Your task to perform on an android device: turn off improve location accuracy Image 0: 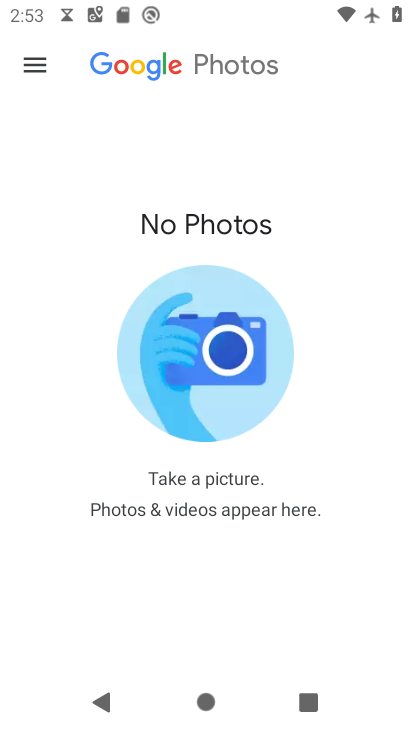
Step 0: press home button
Your task to perform on an android device: turn off improve location accuracy Image 1: 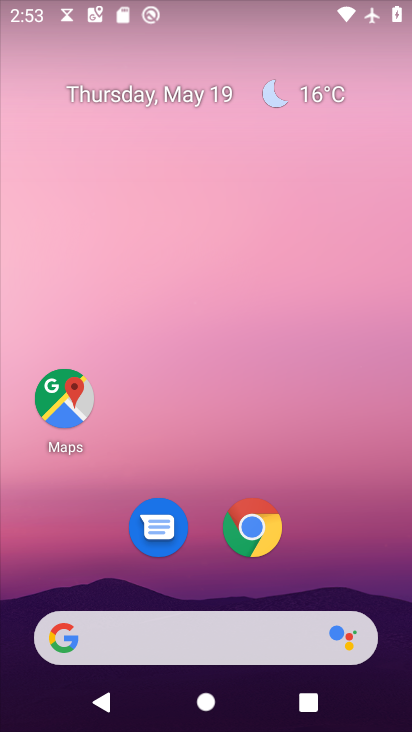
Step 1: drag from (331, 575) to (245, 56)
Your task to perform on an android device: turn off improve location accuracy Image 2: 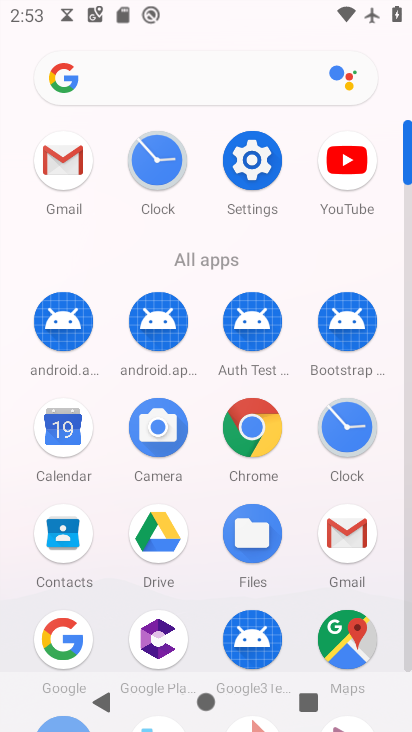
Step 2: click (262, 147)
Your task to perform on an android device: turn off improve location accuracy Image 3: 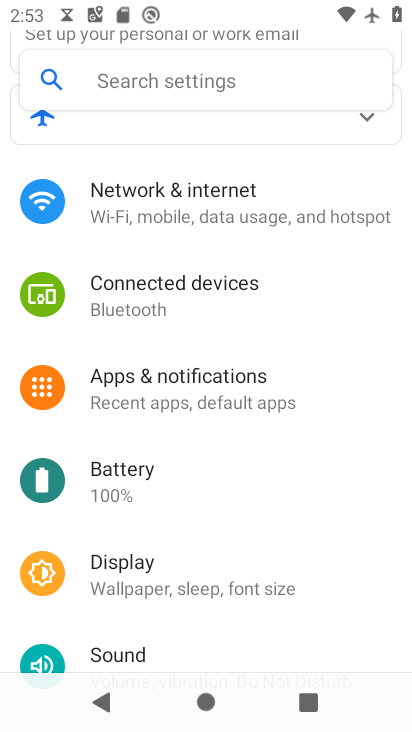
Step 3: drag from (252, 577) to (263, 147)
Your task to perform on an android device: turn off improve location accuracy Image 4: 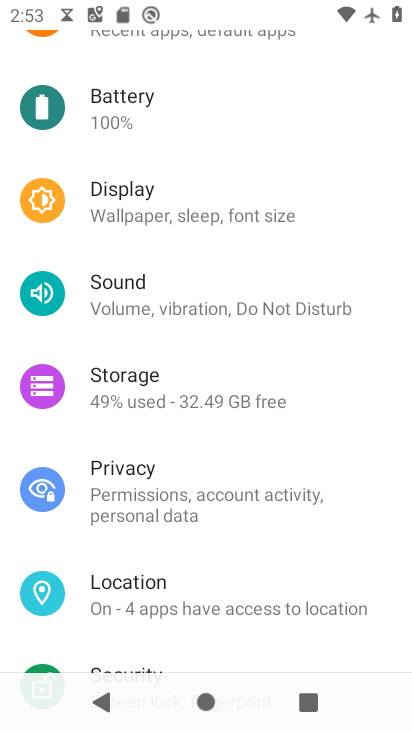
Step 4: click (167, 596)
Your task to perform on an android device: turn off improve location accuracy Image 5: 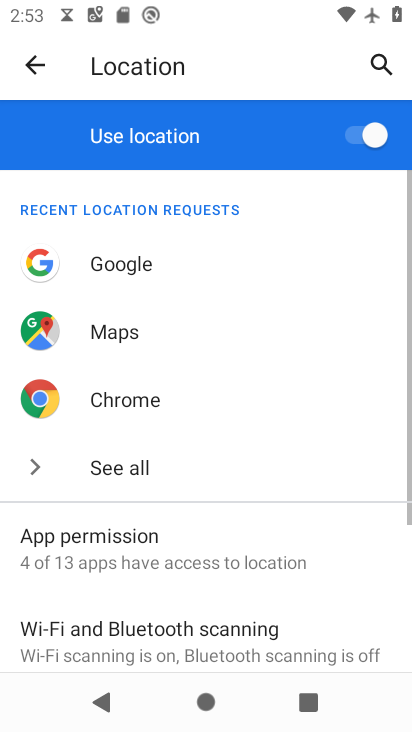
Step 5: drag from (232, 574) to (249, 135)
Your task to perform on an android device: turn off improve location accuracy Image 6: 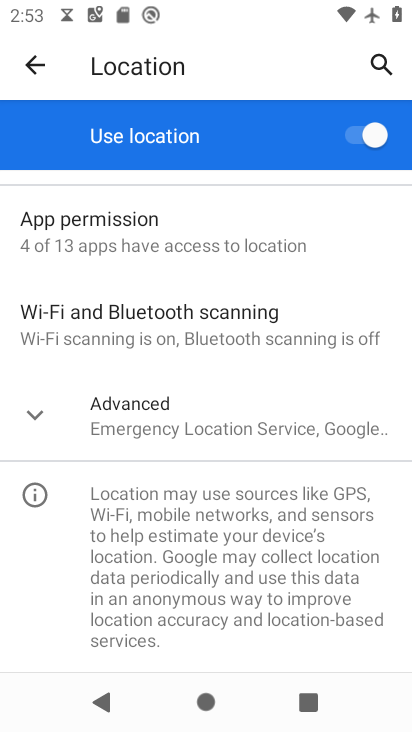
Step 6: click (215, 419)
Your task to perform on an android device: turn off improve location accuracy Image 7: 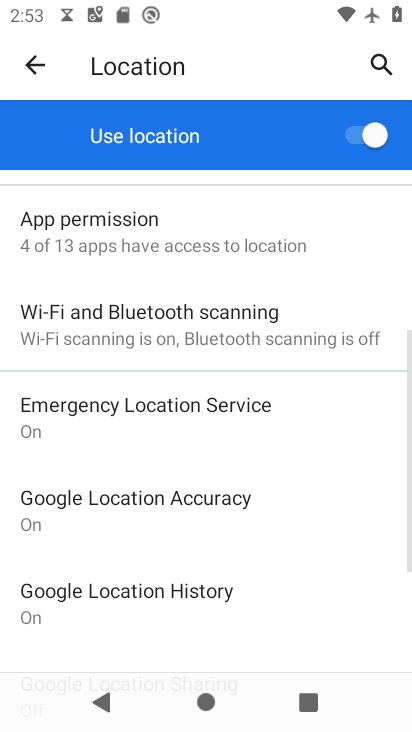
Step 7: click (212, 500)
Your task to perform on an android device: turn off improve location accuracy Image 8: 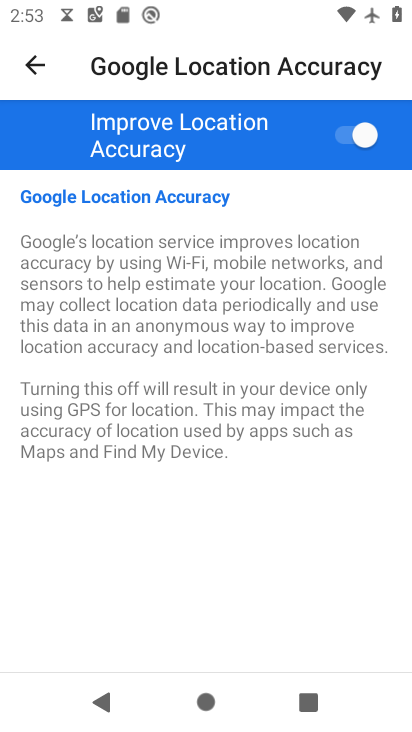
Step 8: click (364, 123)
Your task to perform on an android device: turn off improve location accuracy Image 9: 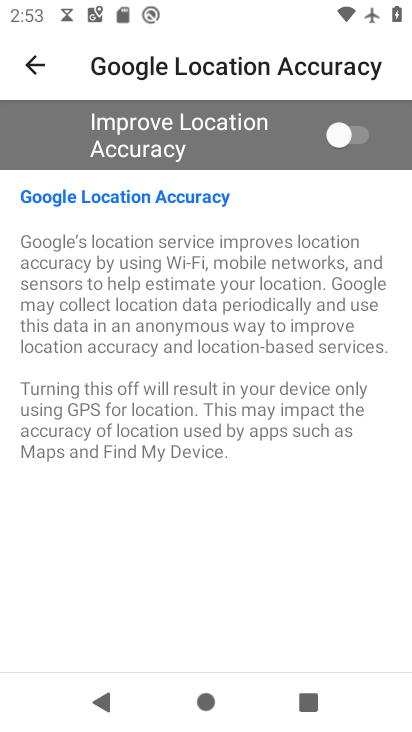
Step 9: task complete